Your task to perform on an android device: empty trash in google photos Image 0: 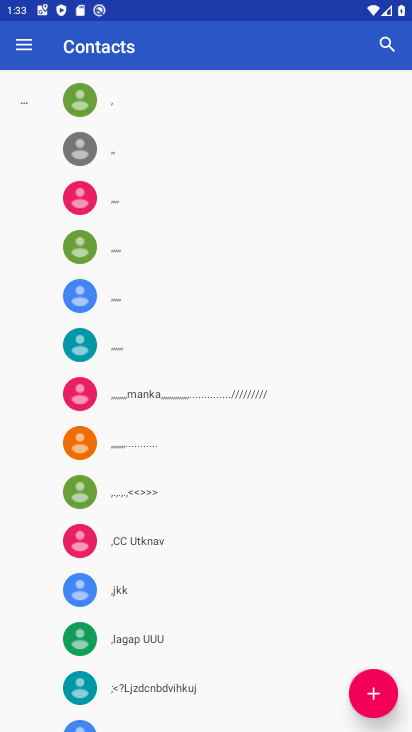
Step 0: press home button
Your task to perform on an android device: empty trash in google photos Image 1: 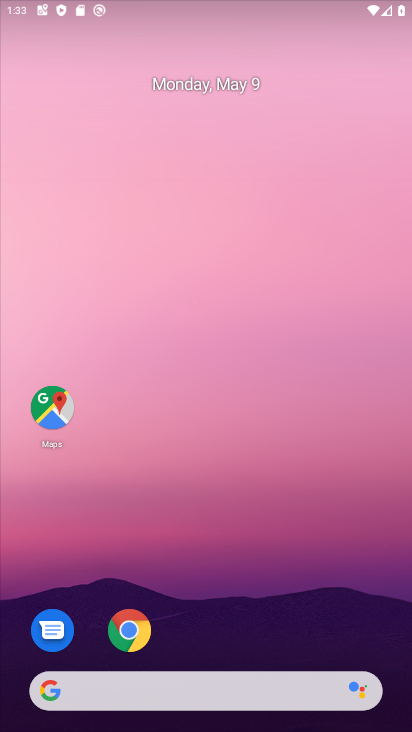
Step 1: drag from (200, 723) to (278, 261)
Your task to perform on an android device: empty trash in google photos Image 2: 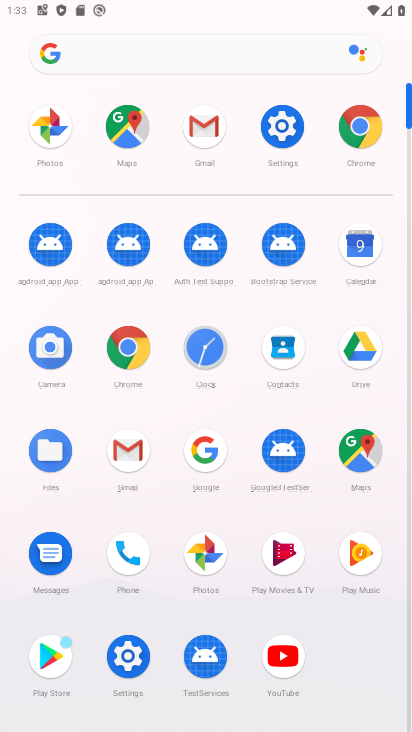
Step 2: click (230, 549)
Your task to perform on an android device: empty trash in google photos Image 3: 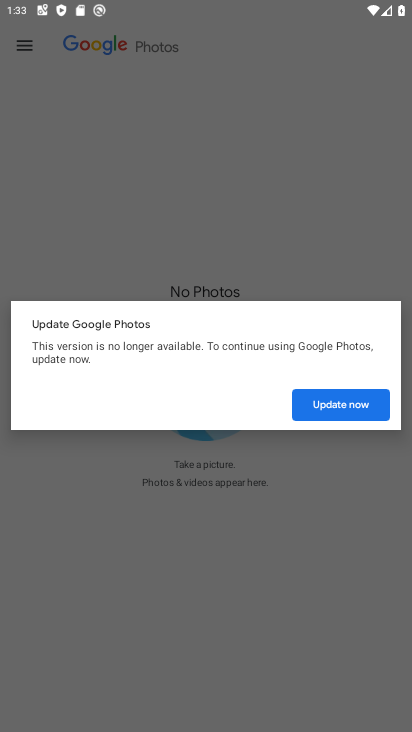
Step 3: click (319, 399)
Your task to perform on an android device: empty trash in google photos Image 4: 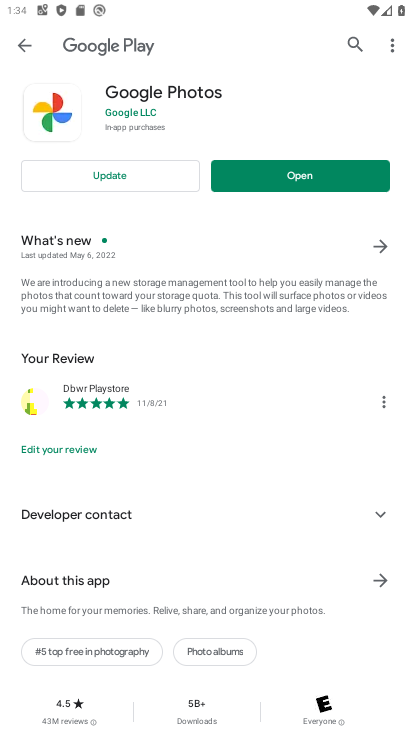
Step 4: click (293, 175)
Your task to perform on an android device: empty trash in google photos Image 5: 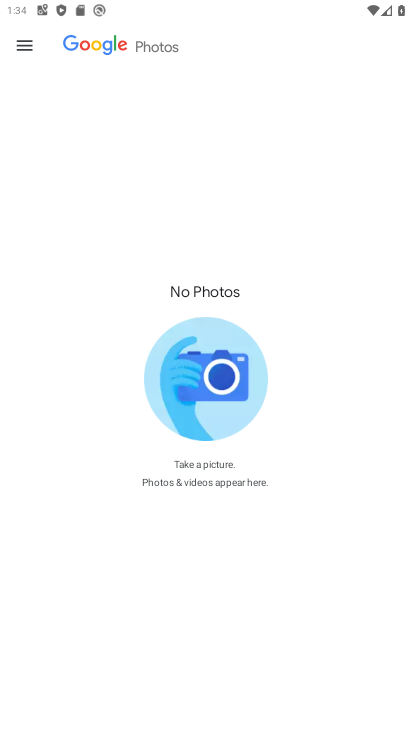
Step 5: click (24, 52)
Your task to perform on an android device: empty trash in google photos Image 6: 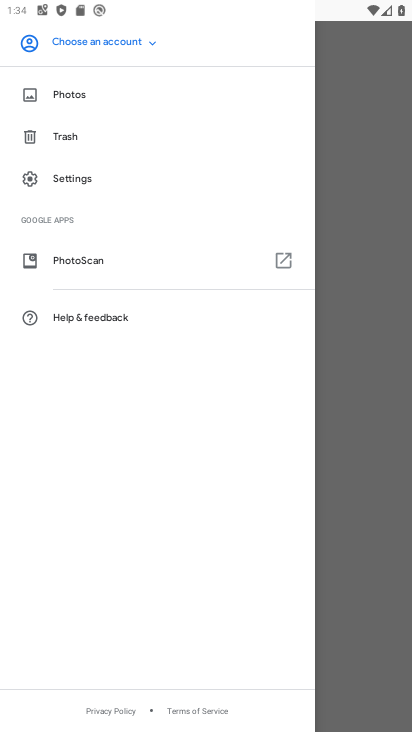
Step 6: click (82, 138)
Your task to perform on an android device: empty trash in google photos Image 7: 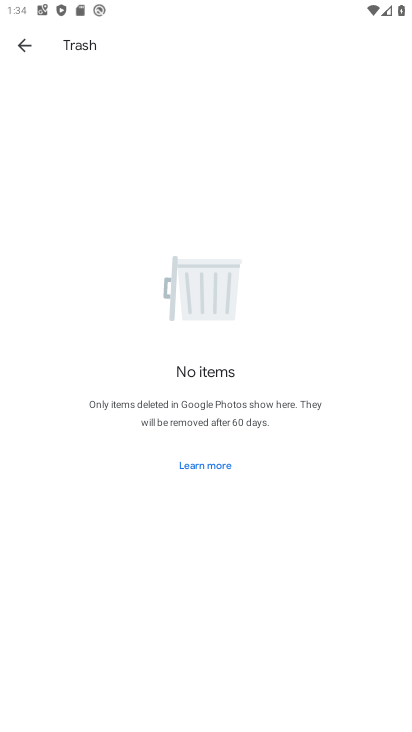
Step 7: task complete